Your task to perform on an android device: change text size in settings app Image 0: 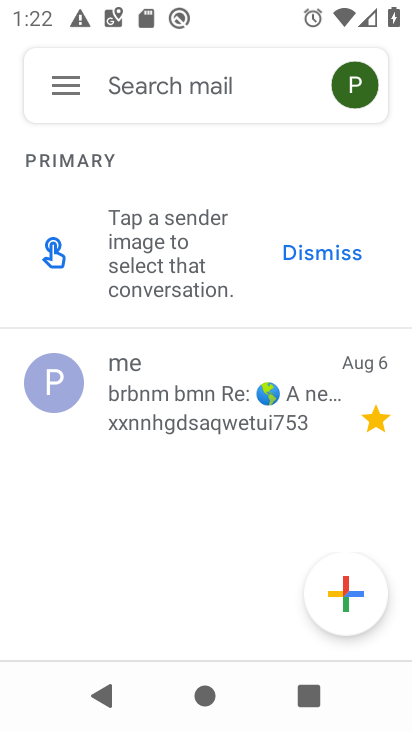
Step 0: press back button
Your task to perform on an android device: change text size in settings app Image 1: 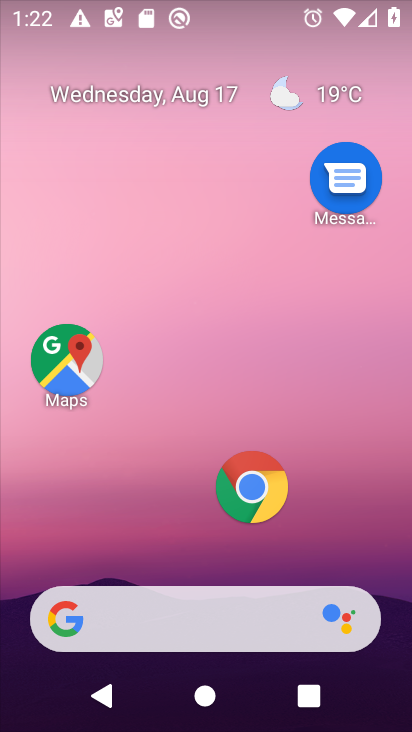
Step 1: drag from (103, 562) to (244, 42)
Your task to perform on an android device: change text size in settings app Image 2: 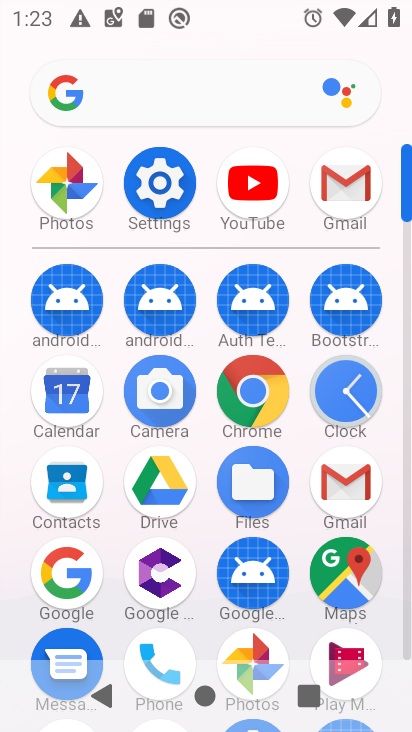
Step 2: click (172, 181)
Your task to perform on an android device: change text size in settings app Image 3: 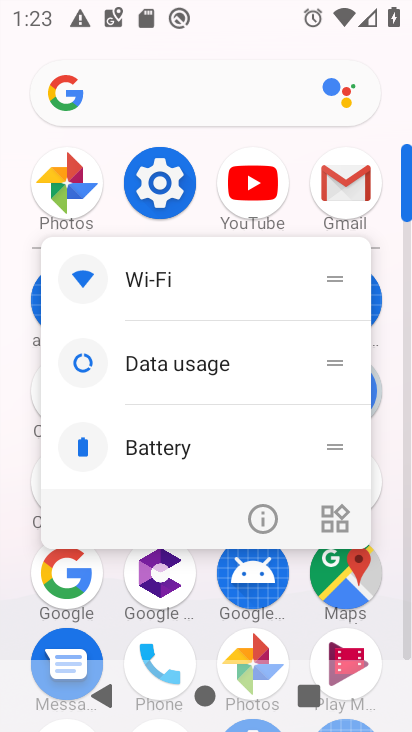
Step 3: click (159, 186)
Your task to perform on an android device: change text size in settings app Image 4: 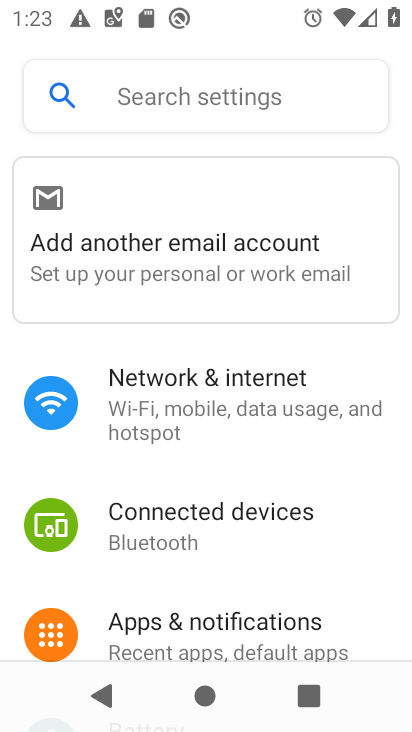
Step 4: click (173, 80)
Your task to perform on an android device: change text size in settings app Image 5: 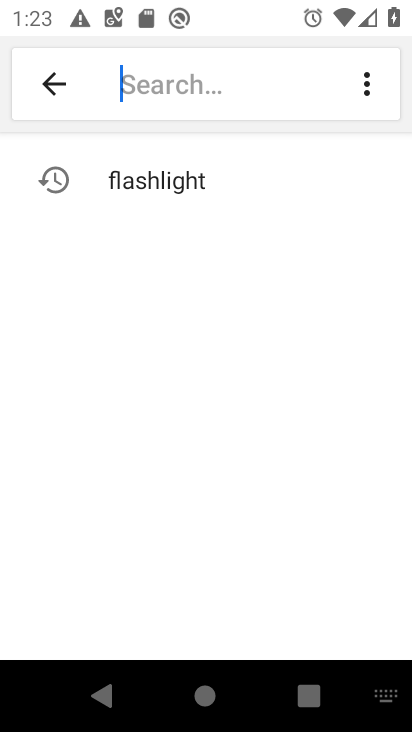
Step 5: type "text size'"
Your task to perform on an android device: change text size in settings app Image 6: 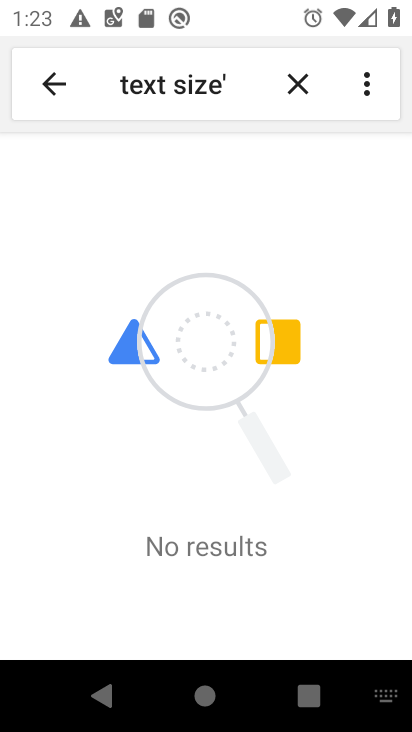
Step 6: click (300, 72)
Your task to perform on an android device: change text size in settings app Image 7: 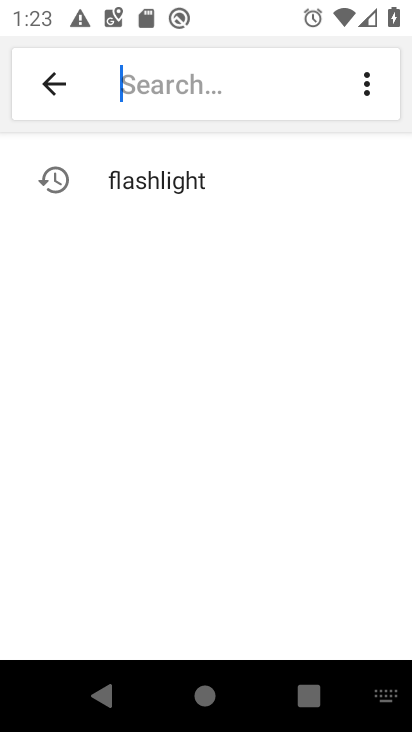
Step 7: type "text sizze"
Your task to perform on an android device: change text size in settings app Image 8: 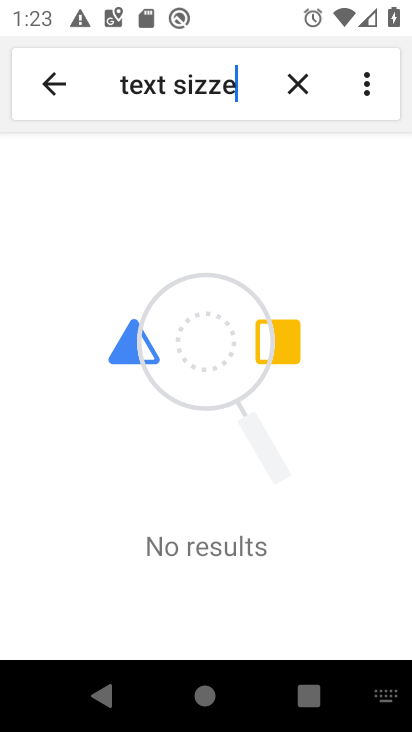
Step 8: click (297, 87)
Your task to perform on an android device: change text size in settings app Image 9: 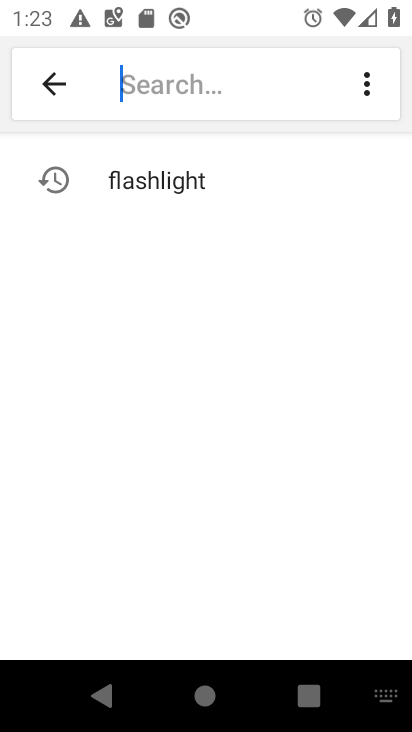
Step 9: type "text"
Your task to perform on an android device: change text size in settings app Image 10: 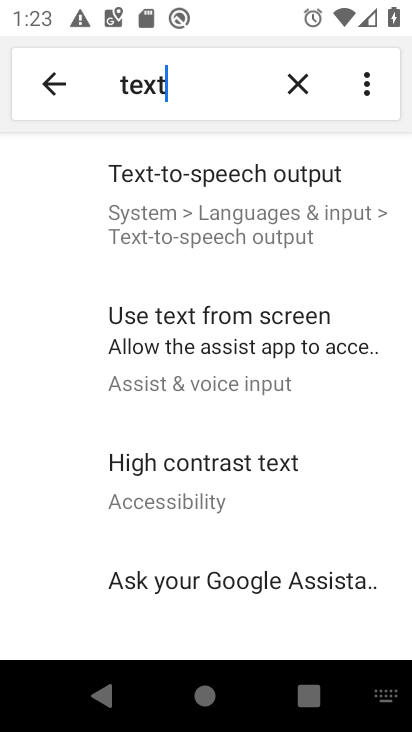
Step 10: drag from (243, 478) to (280, 115)
Your task to perform on an android device: change text size in settings app Image 11: 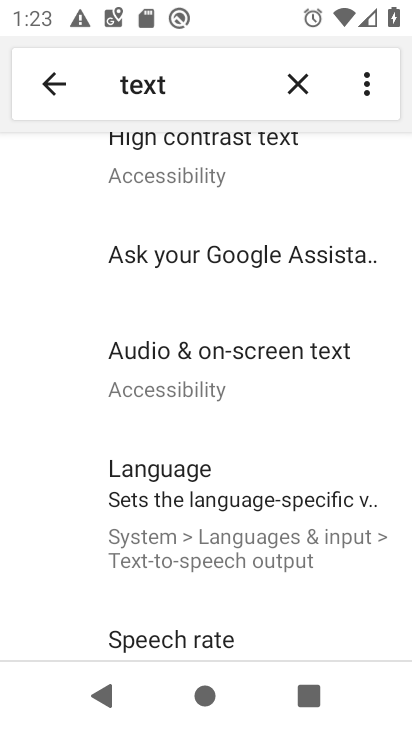
Step 11: drag from (176, 579) to (268, 154)
Your task to perform on an android device: change text size in settings app Image 12: 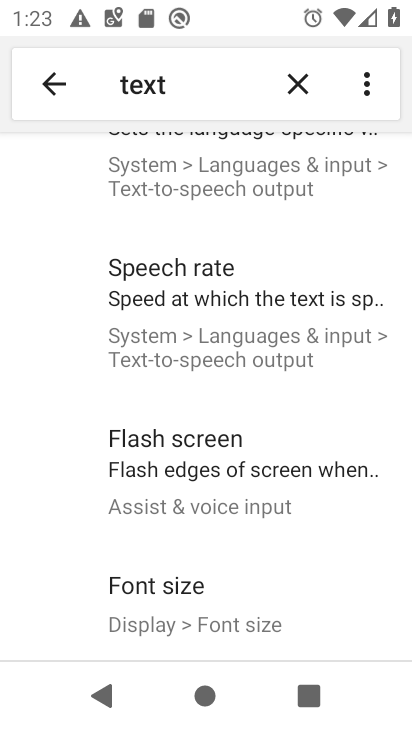
Step 12: click (179, 608)
Your task to perform on an android device: change text size in settings app Image 13: 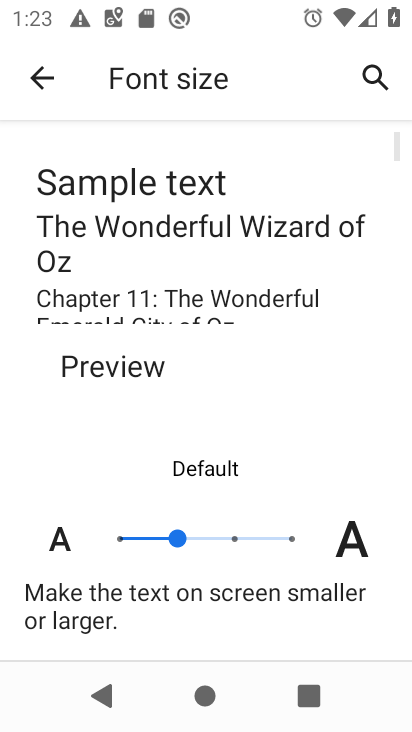
Step 13: task complete